Your task to perform on an android device: turn on bluetooth scan Image 0: 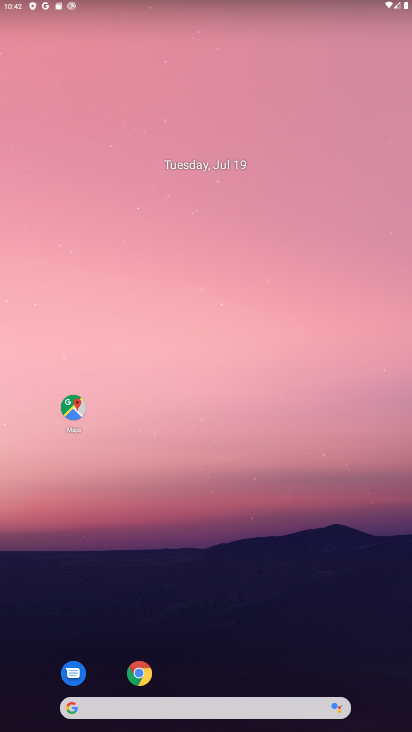
Step 0: drag from (382, 673) to (367, 318)
Your task to perform on an android device: turn on bluetooth scan Image 1: 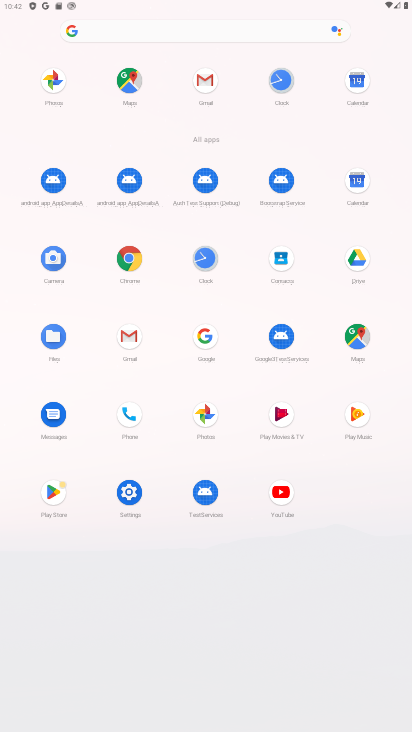
Step 1: click (127, 488)
Your task to perform on an android device: turn on bluetooth scan Image 2: 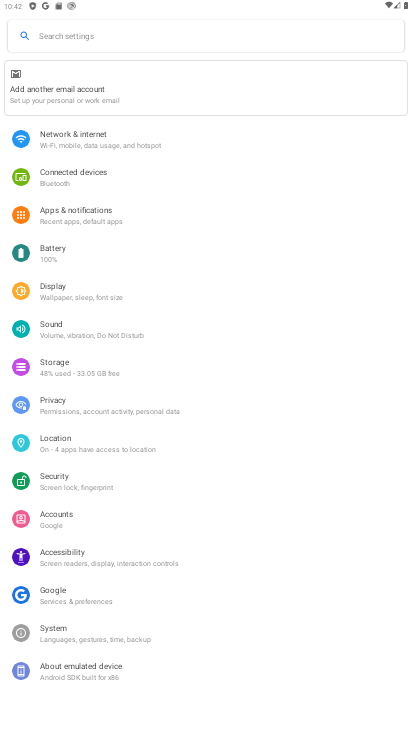
Step 2: click (48, 438)
Your task to perform on an android device: turn on bluetooth scan Image 3: 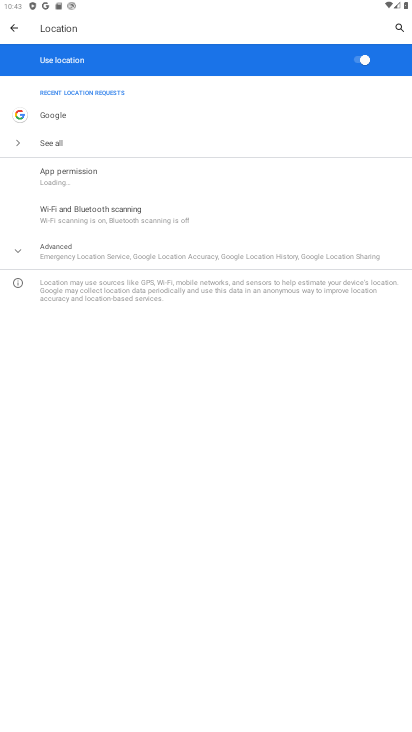
Step 3: click (79, 210)
Your task to perform on an android device: turn on bluetooth scan Image 4: 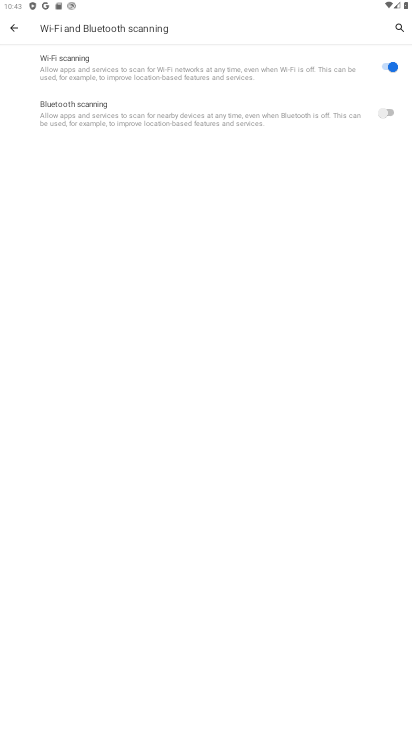
Step 4: click (390, 114)
Your task to perform on an android device: turn on bluetooth scan Image 5: 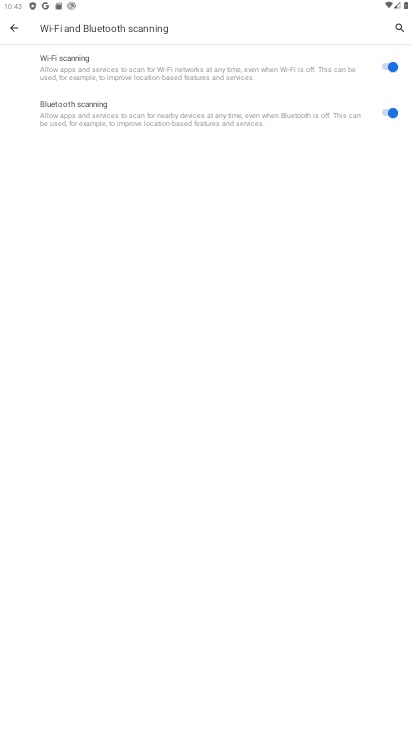
Step 5: task complete